Your task to perform on an android device: turn on wifi Image 0: 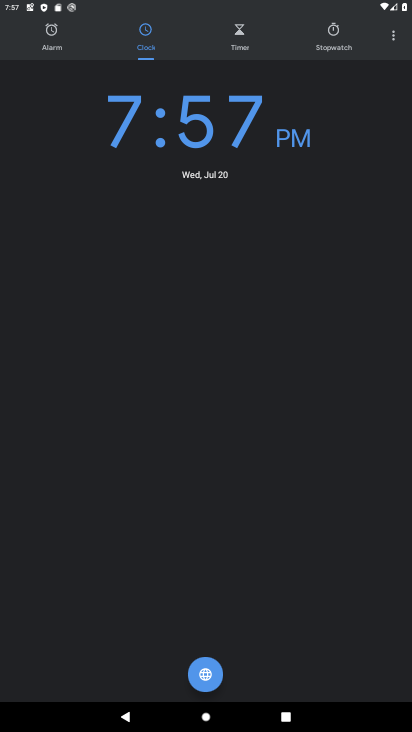
Step 0: press home button
Your task to perform on an android device: turn on wifi Image 1: 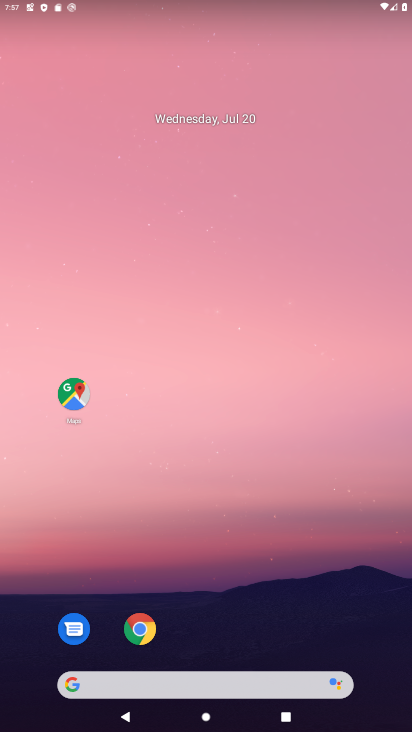
Step 1: drag from (211, 517) to (214, 78)
Your task to perform on an android device: turn on wifi Image 2: 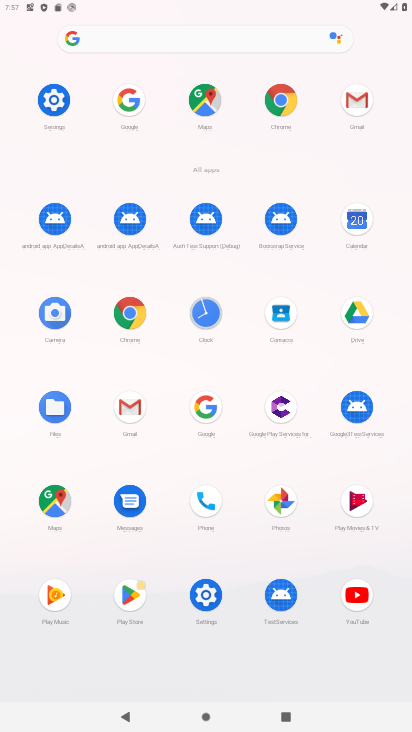
Step 2: click (57, 105)
Your task to perform on an android device: turn on wifi Image 3: 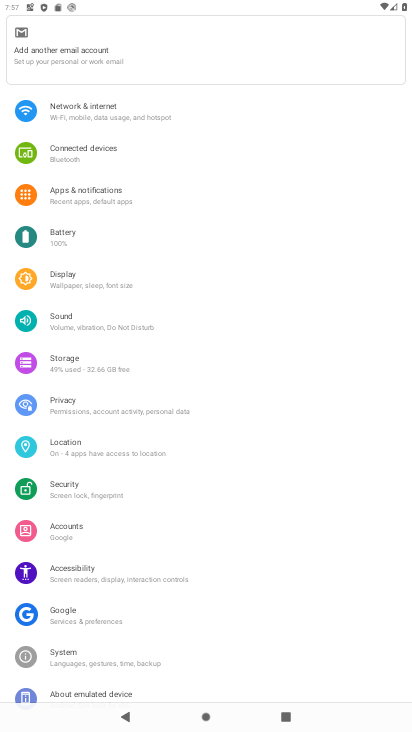
Step 3: click (111, 120)
Your task to perform on an android device: turn on wifi Image 4: 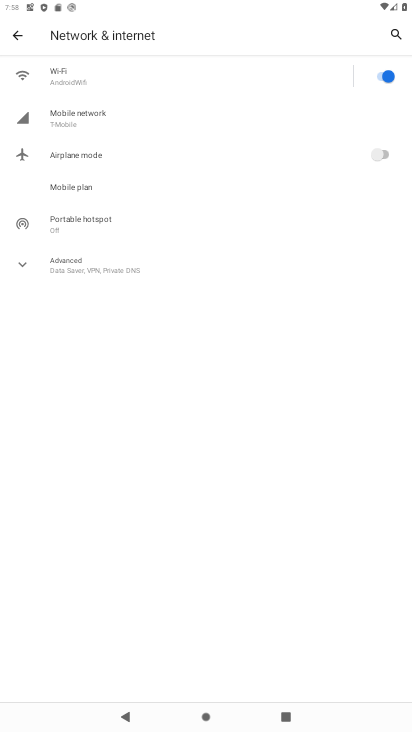
Step 4: task complete